Your task to perform on an android device: toggle translation in the chrome app Image 0: 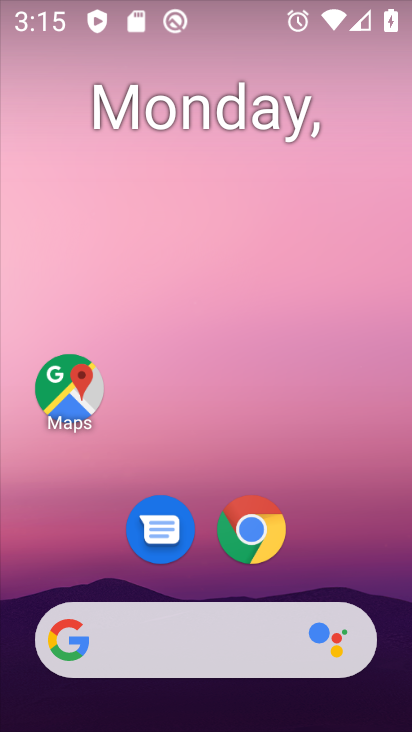
Step 0: click (259, 540)
Your task to perform on an android device: toggle translation in the chrome app Image 1: 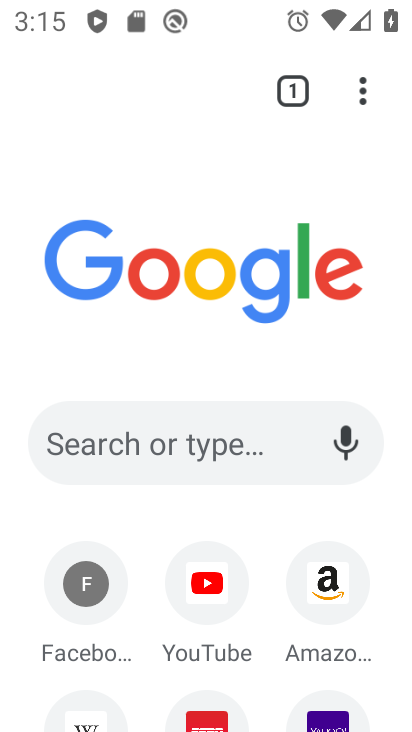
Step 1: click (365, 109)
Your task to perform on an android device: toggle translation in the chrome app Image 2: 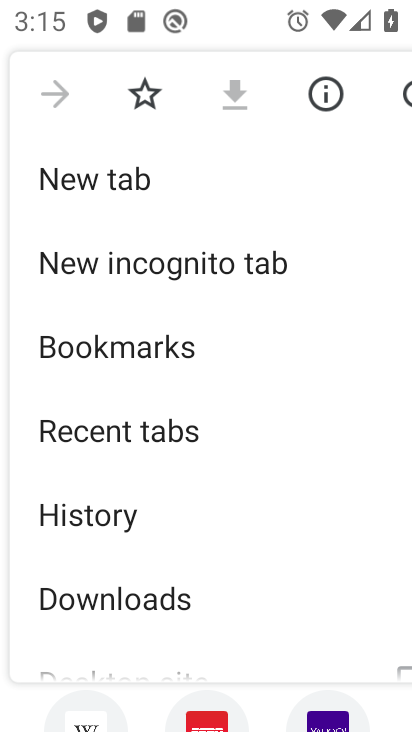
Step 2: drag from (177, 579) to (270, 59)
Your task to perform on an android device: toggle translation in the chrome app Image 3: 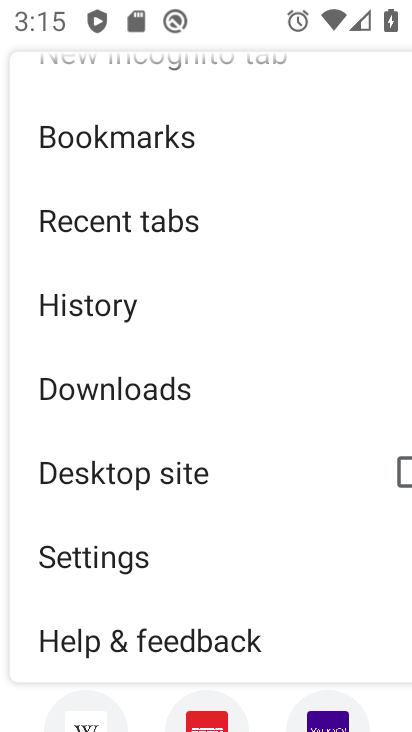
Step 3: click (95, 559)
Your task to perform on an android device: toggle translation in the chrome app Image 4: 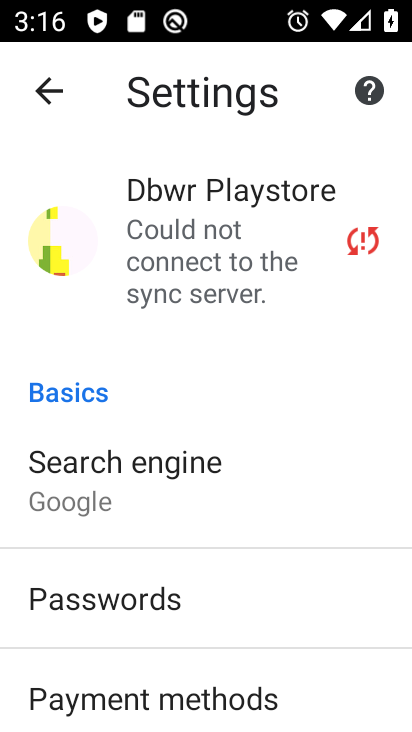
Step 4: drag from (153, 582) to (282, 103)
Your task to perform on an android device: toggle translation in the chrome app Image 5: 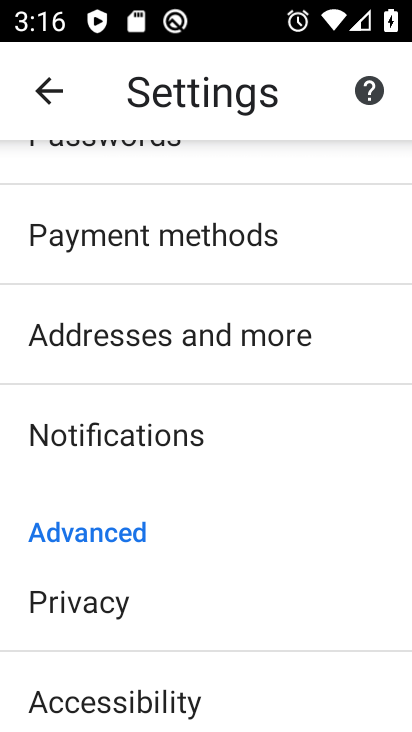
Step 5: drag from (159, 581) to (267, 128)
Your task to perform on an android device: toggle translation in the chrome app Image 6: 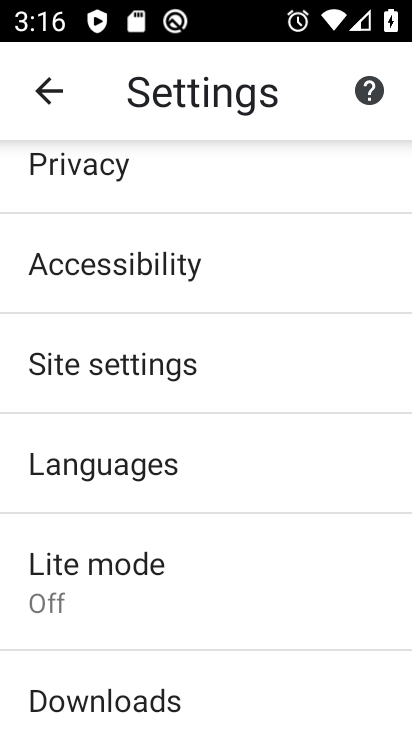
Step 6: click (137, 467)
Your task to perform on an android device: toggle translation in the chrome app Image 7: 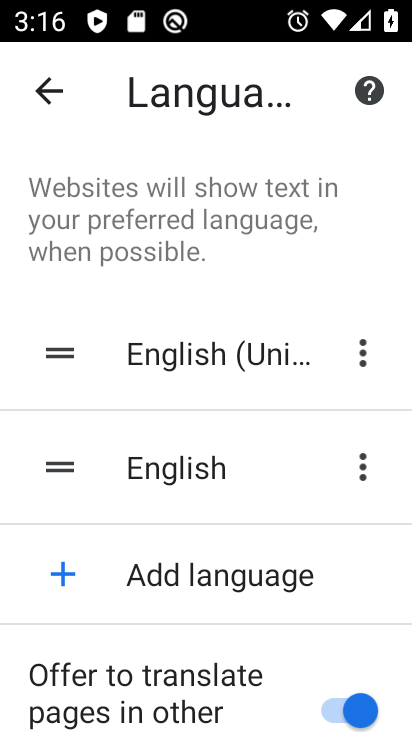
Step 7: click (317, 682)
Your task to perform on an android device: toggle translation in the chrome app Image 8: 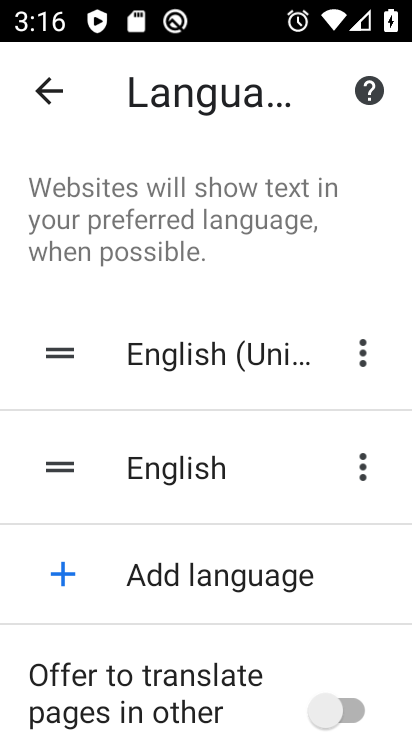
Step 8: task complete